Your task to perform on an android device: see sites visited before in the chrome app Image 0: 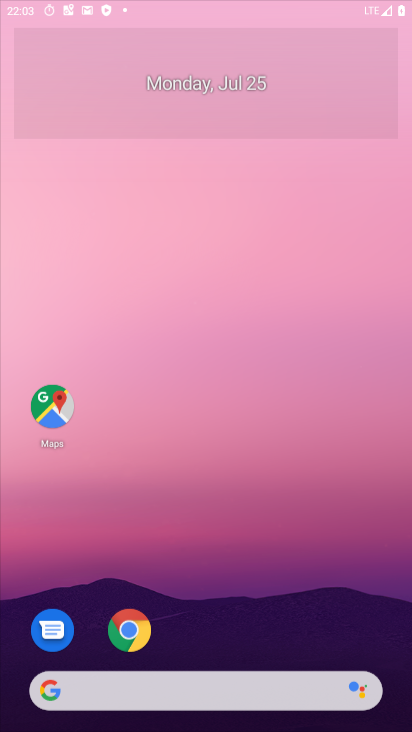
Step 0: press home button
Your task to perform on an android device: see sites visited before in the chrome app Image 1: 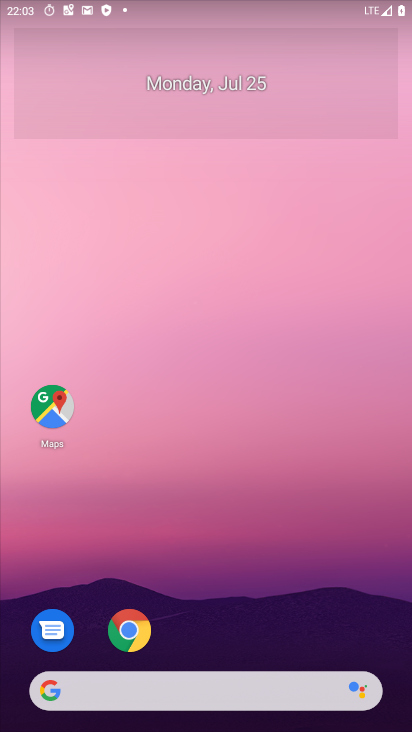
Step 1: drag from (261, 575) to (265, 130)
Your task to perform on an android device: see sites visited before in the chrome app Image 2: 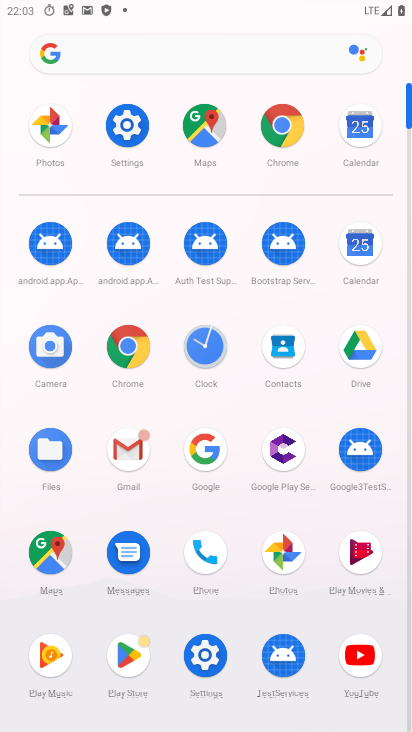
Step 2: click (283, 123)
Your task to perform on an android device: see sites visited before in the chrome app Image 3: 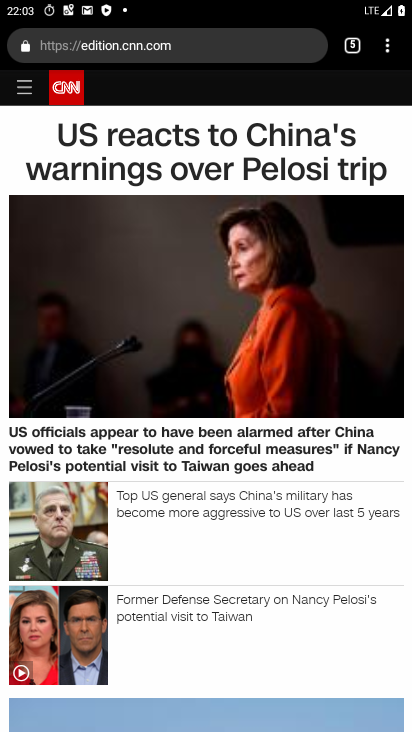
Step 3: task complete